Your task to perform on an android device: Go to calendar. Show me events next week Image 0: 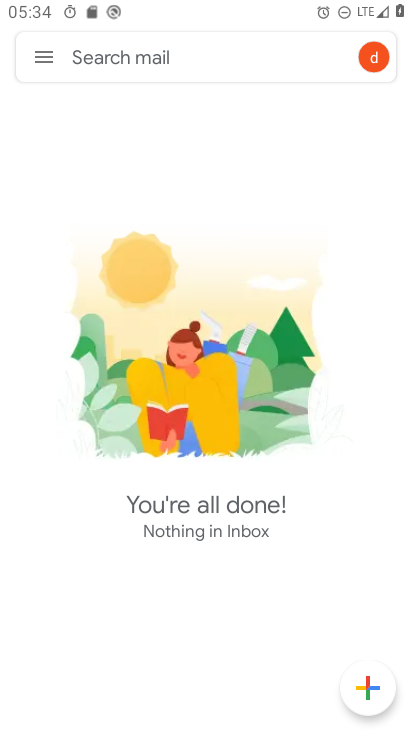
Step 0: press home button
Your task to perform on an android device: Go to calendar. Show me events next week Image 1: 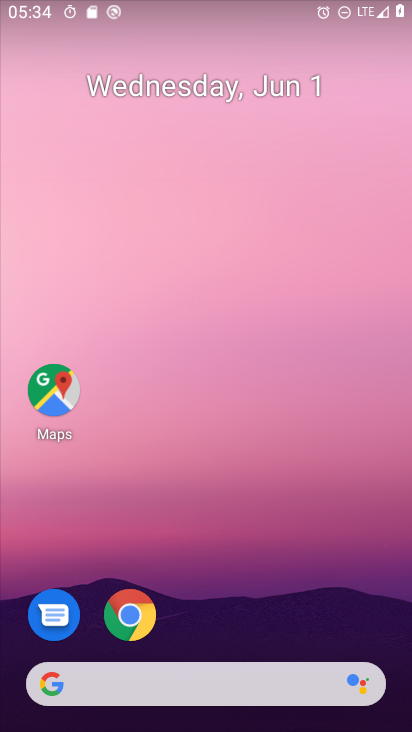
Step 1: drag from (255, 650) to (253, 48)
Your task to perform on an android device: Go to calendar. Show me events next week Image 2: 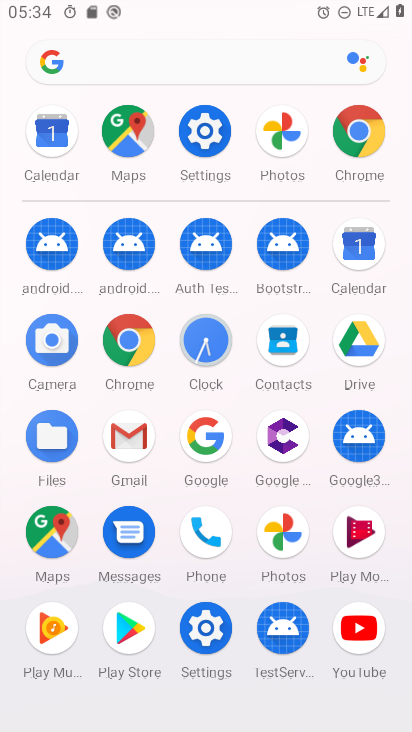
Step 2: click (359, 257)
Your task to perform on an android device: Go to calendar. Show me events next week Image 3: 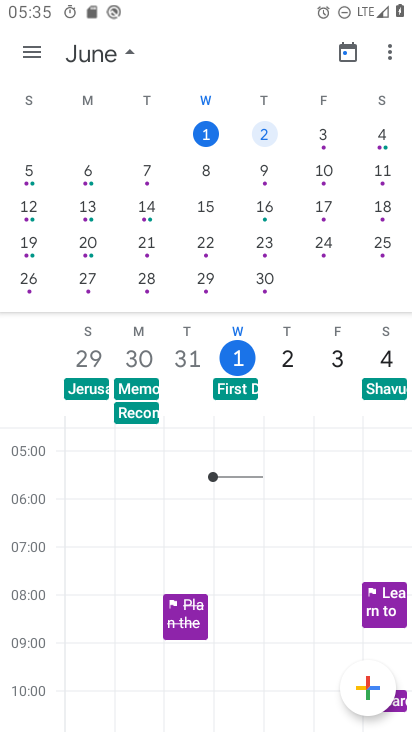
Step 3: click (260, 169)
Your task to perform on an android device: Go to calendar. Show me events next week Image 4: 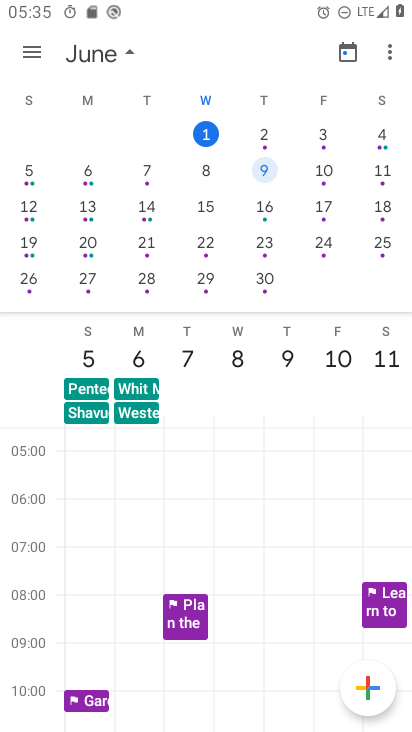
Step 4: click (43, 53)
Your task to perform on an android device: Go to calendar. Show me events next week Image 5: 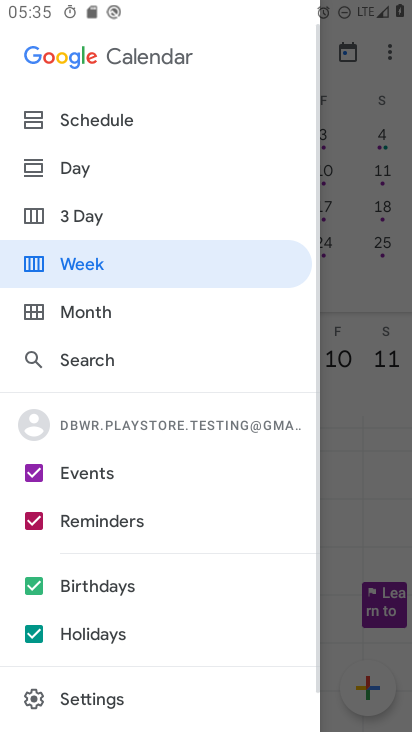
Step 5: click (89, 257)
Your task to perform on an android device: Go to calendar. Show me events next week Image 6: 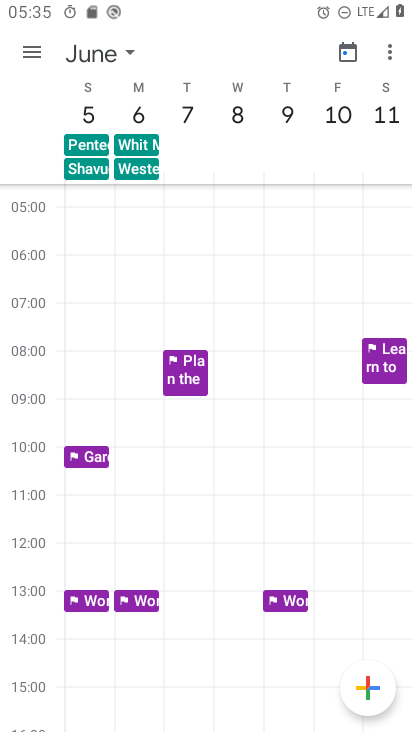
Step 6: task complete